Your task to perform on an android device: open app "Etsy: Buy & Sell Unique Items" (install if not already installed) and enter user name: "camp@inbox.com" and password: "unrelated" Image 0: 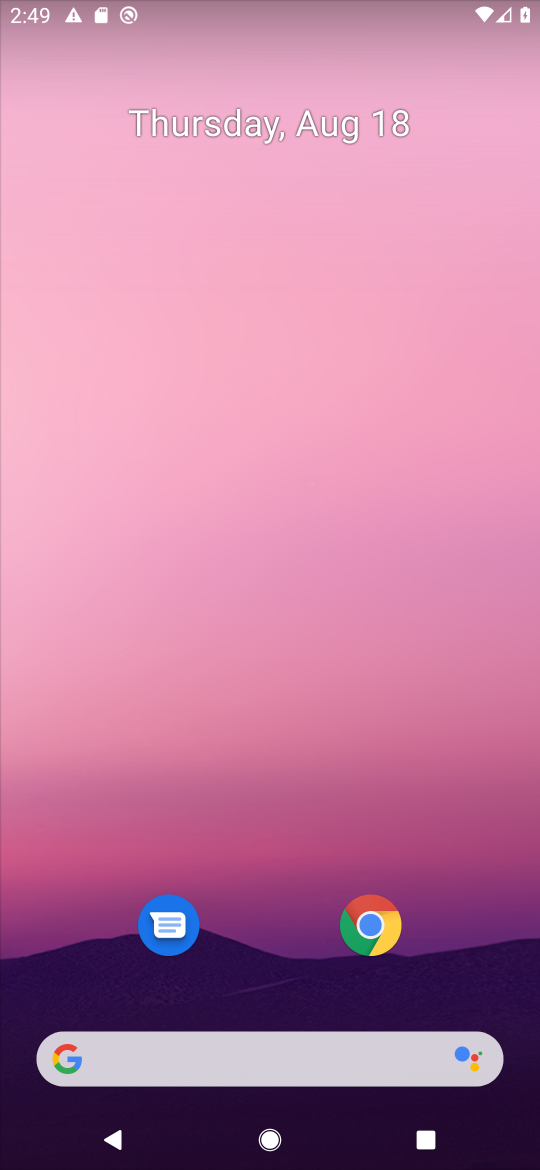
Step 0: drag from (244, 979) to (250, 135)
Your task to perform on an android device: open app "Etsy: Buy & Sell Unique Items" (install if not already installed) and enter user name: "camp@inbox.com" and password: "unrelated" Image 1: 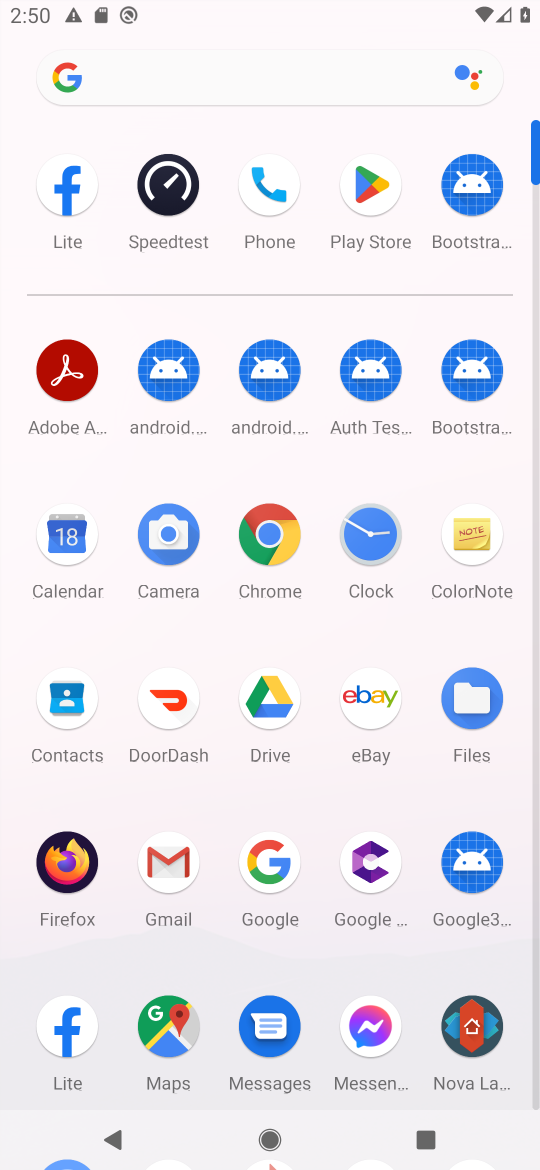
Step 1: click (372, 191)
Your task to perform on an android device: open app "Etsy: Buy & Sell Unique Items" (install if not already installed) and enter user name: "camp@inbox.com" and password: "unrelated" Image 2: 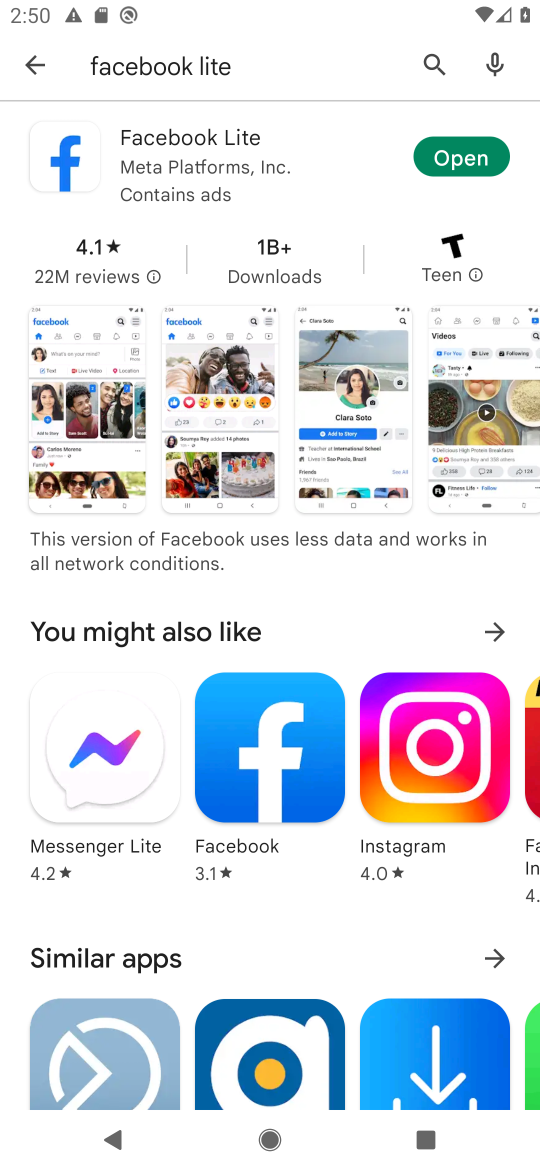
Step 2: click (30, 65)
Your task to perform on an android device: open app "Etsy: Buy & Sell Unique Items" (install if not already installed) and enter user name: "camp@inbox.com" and password: "unrelated" Image 3: 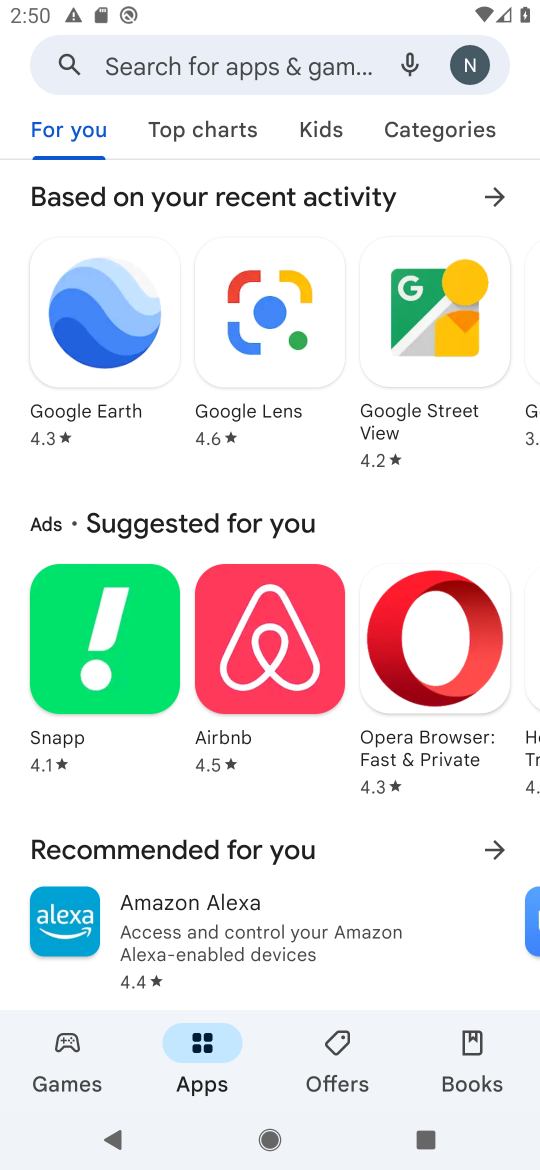
Step 3: click (203, 65)
Your task to perform on an android device: open app "Etsy: Buy & Sell Unique Items" (install if not already installed) and enter user name: "camp@inbox.com" and password: "unrelated" Image 4: 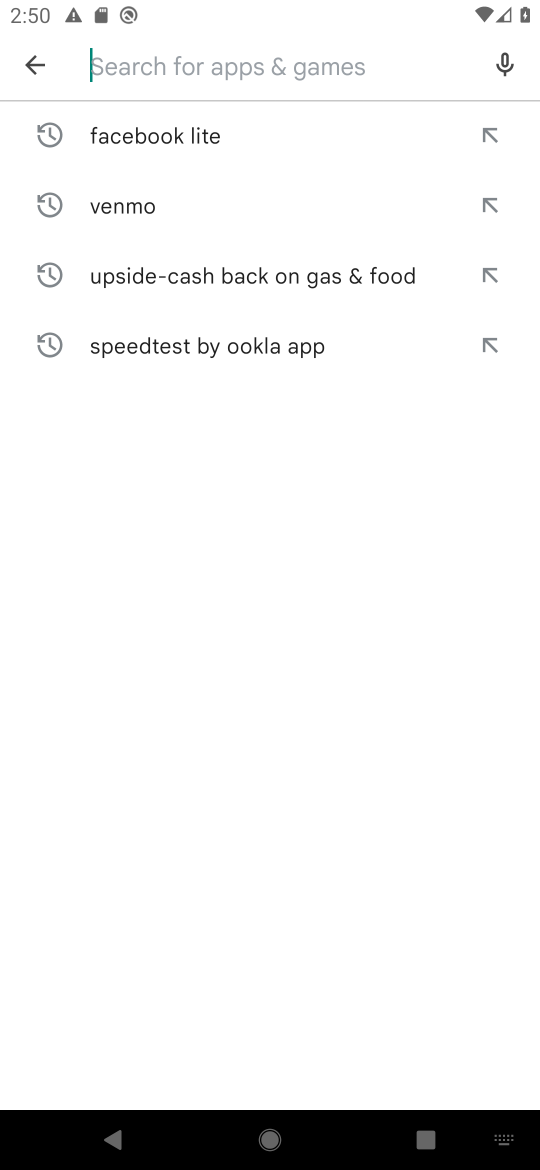
Step 4: type "Etsy"
Your task to perform on an android device: open app "Etsy: Buy & Sell Unique Items" (install if not already installed) and enter user name: "camp@inbox.com" and password: "unrelated" Image 5: 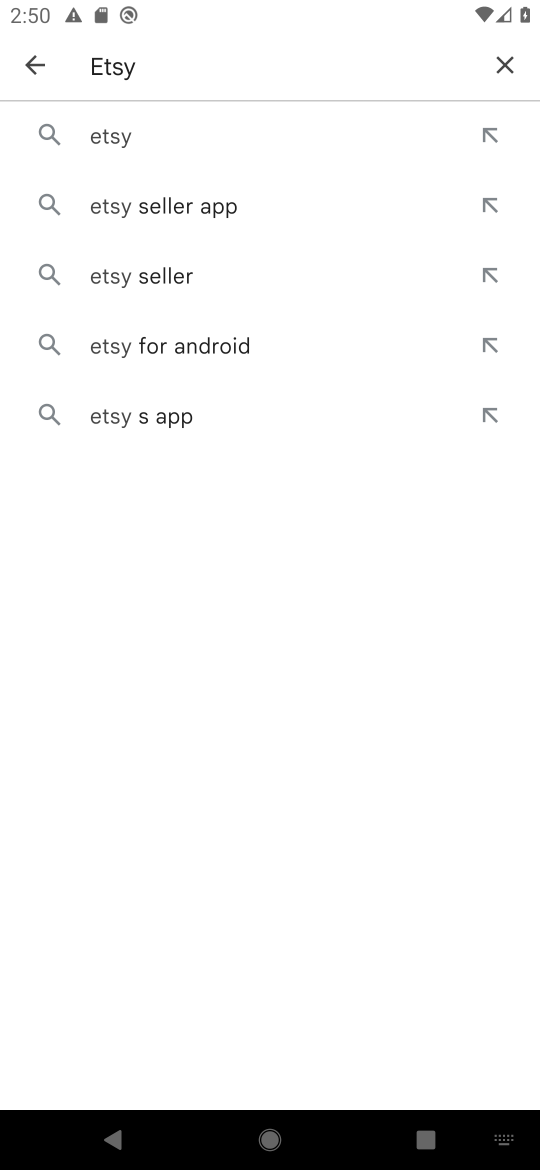
Step 5: click (112, 131)
Your task to perform on an android device: open app "Etsy: Buy & Sell Unique Items" (install if not already installed) and enter user name: "camp@inbox.com" and password: "unrelated" Image 6: 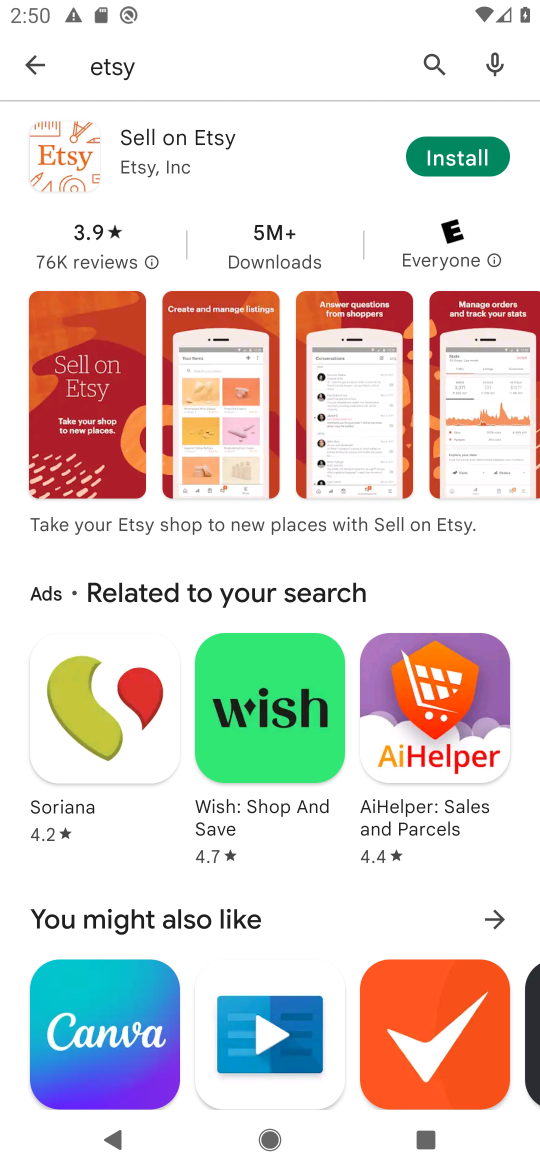
Step 6: click (469, 153)
Your task to perform on an android device: open app "Etsy: Buy & Sell Unique Items" (install if not already installed) and enter user name: "camp@inbox.com" and password: "unrelated" Image 7: 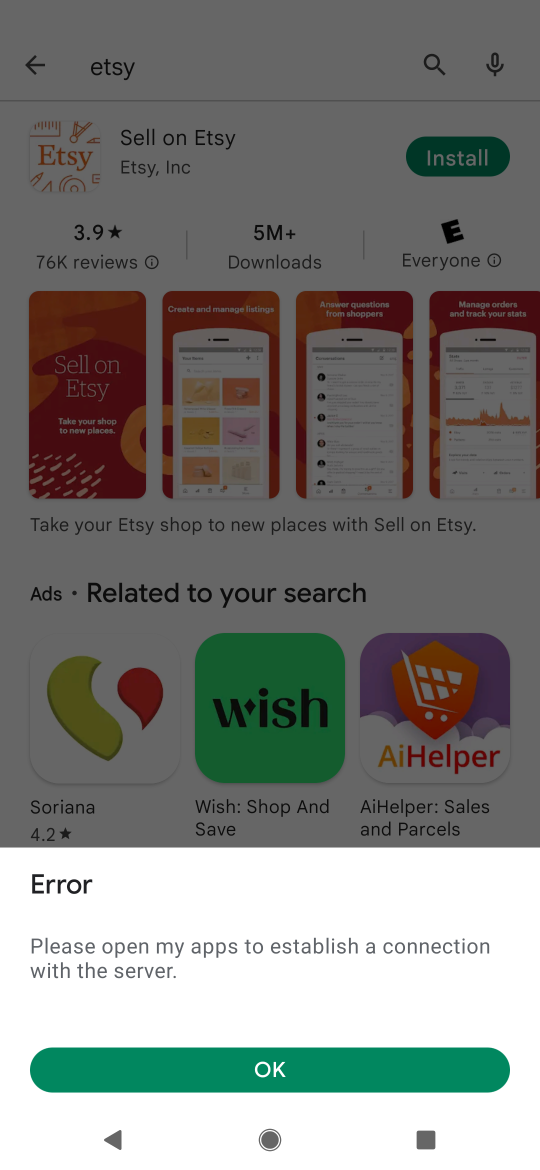
Step 7: click (279, 1064)
Your task to perform on an android device: open app "Etsy: Buy & Sell Unique Items" (install if not already installed) and enter user name: "camp@inbox.com" and password: "unrelated" Image 8: 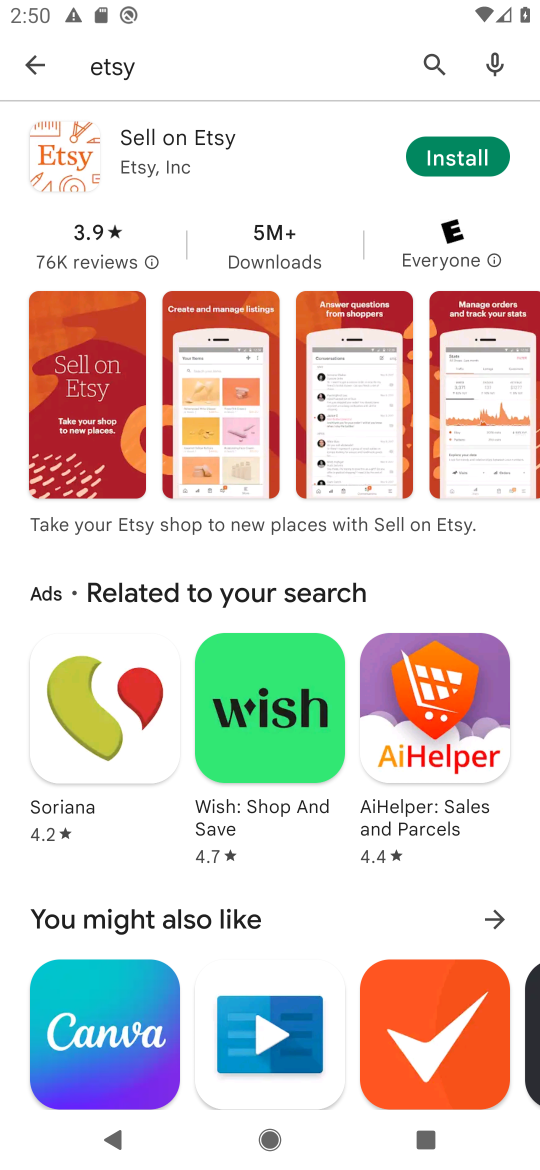
Step 8: task complete